Your task to perform on an android device: Add "razer blackwidow" to the cart on walmart Image 0: 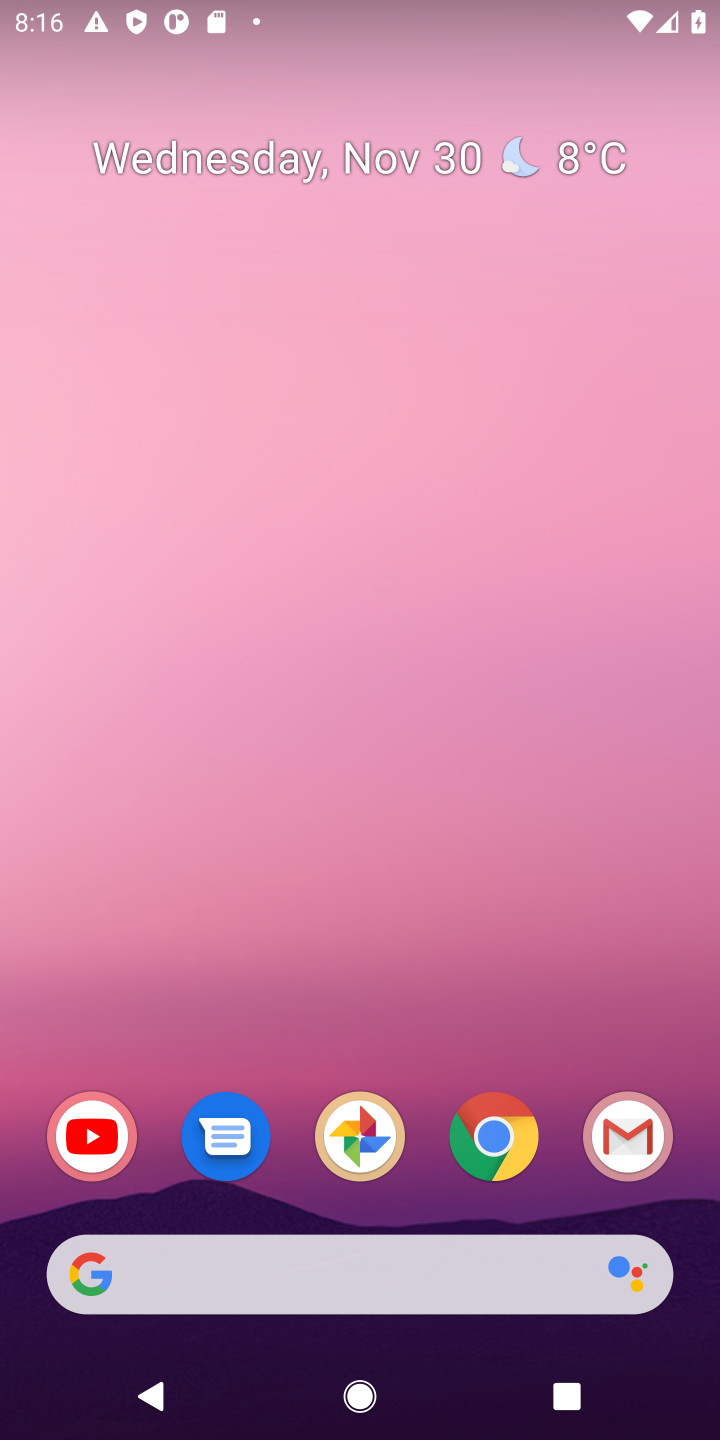
Step 0: click (506, 1151)
Your task to perform on an android device: Add "razer blackwidow" to the cart on walmart Image 1: 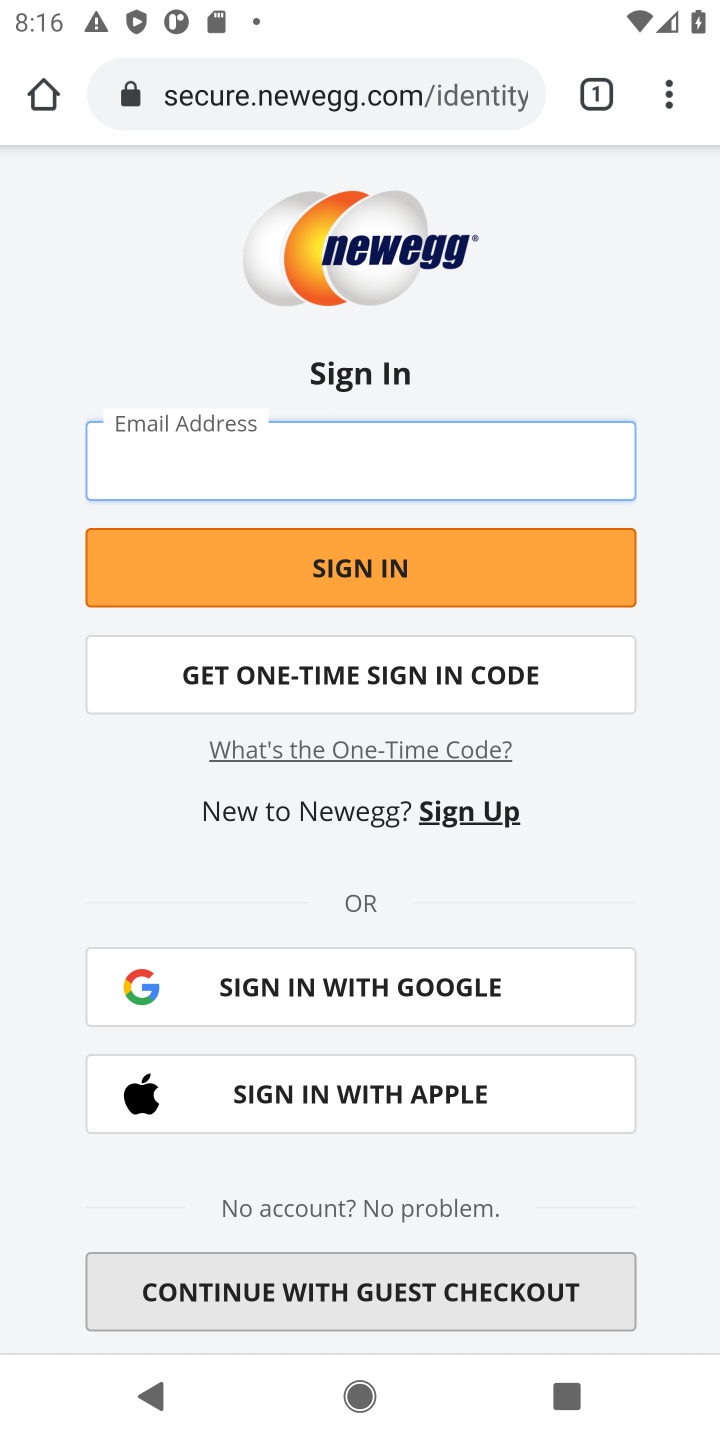
Step 1: click (309, 99)
Your task to perform on an android device: Add "razer blackwidow" to the cart on walmart Image 2: 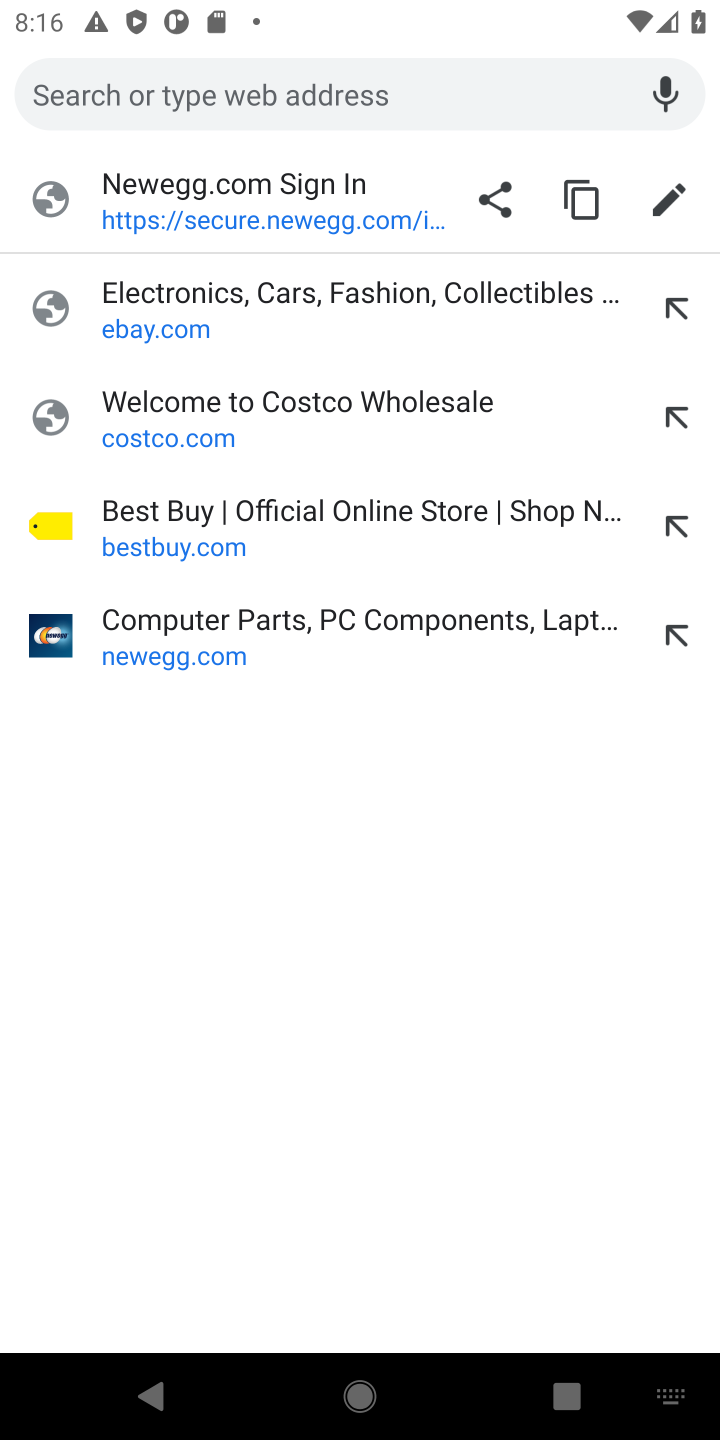
Step 2: type "walmart.com"
Your task to perform on an android device: Add "razer blackwidow" to the cart on walmart Image 3: 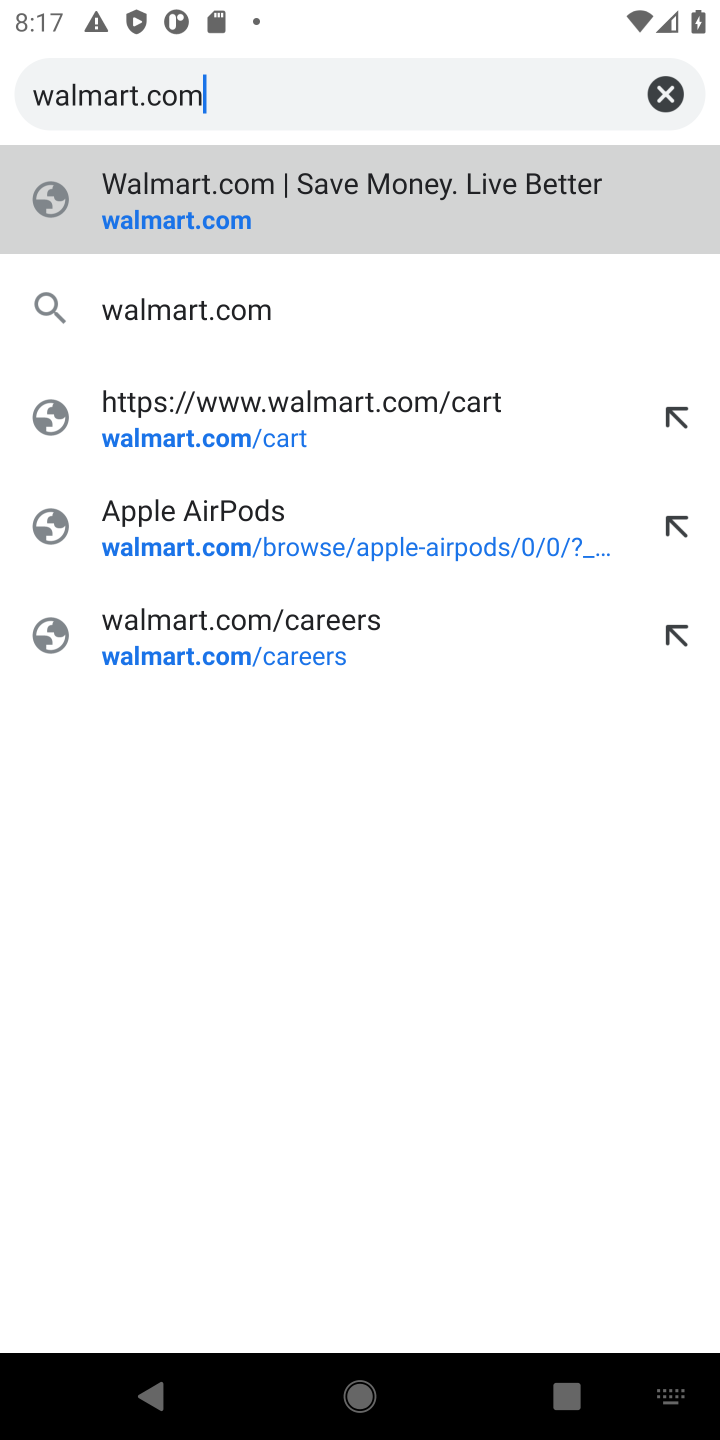
Step 3: click (187, 228)
Your task to perform on an android device: Add "razer blackwidow" to the cart on walmart Image 4: 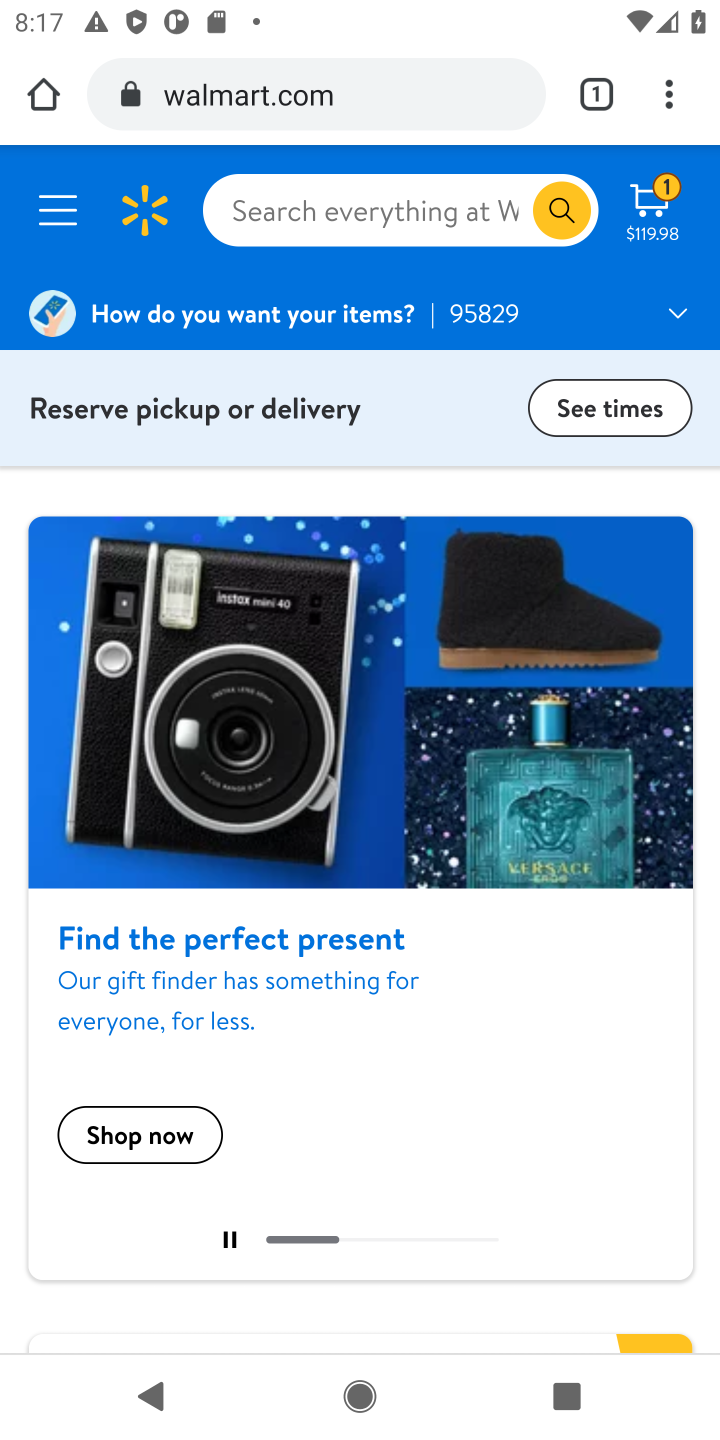
Step 4: click (277, 221)
Your task to perform on an android device: Add "razer blackwidow" to the cart on walmart Image 5: 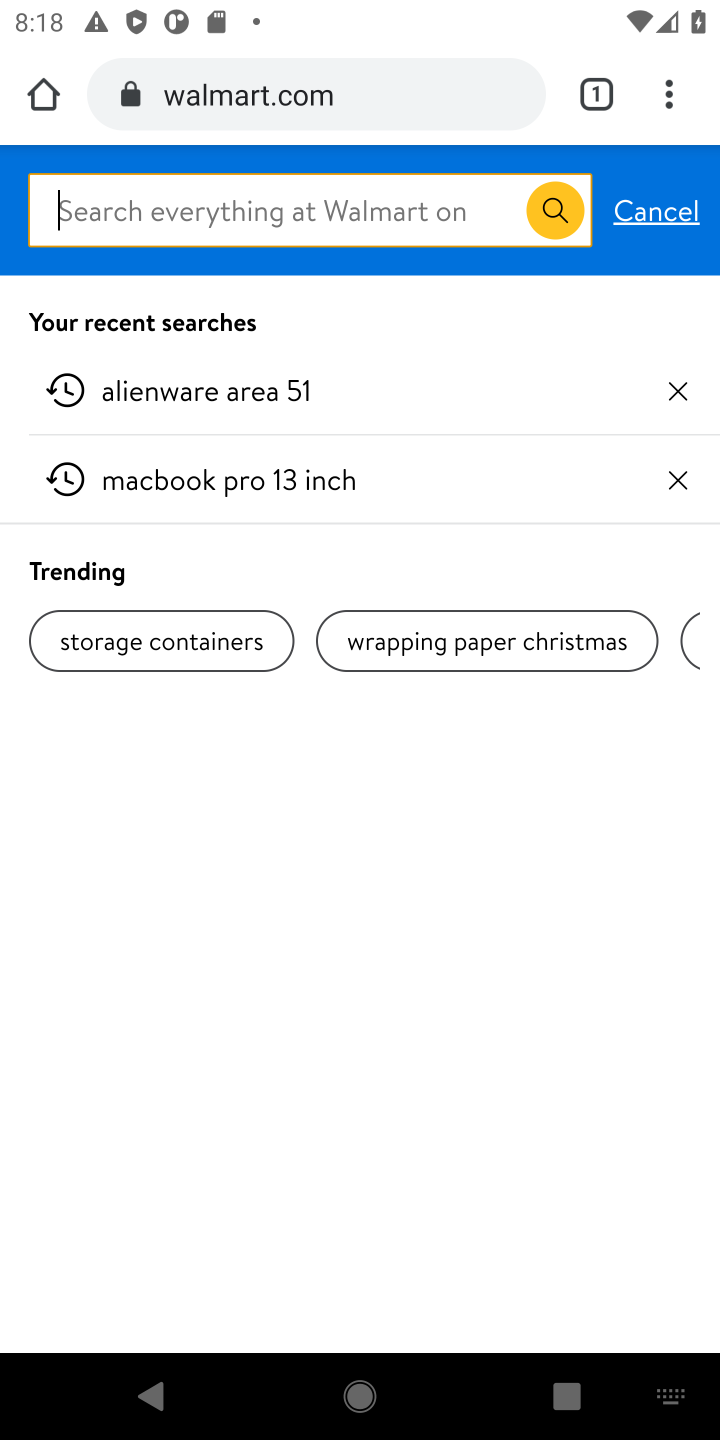
Step 5: click (290, 215)
Your task to perform on an android device: Add "razer blackwidow" to the cart on walmart Image 6: 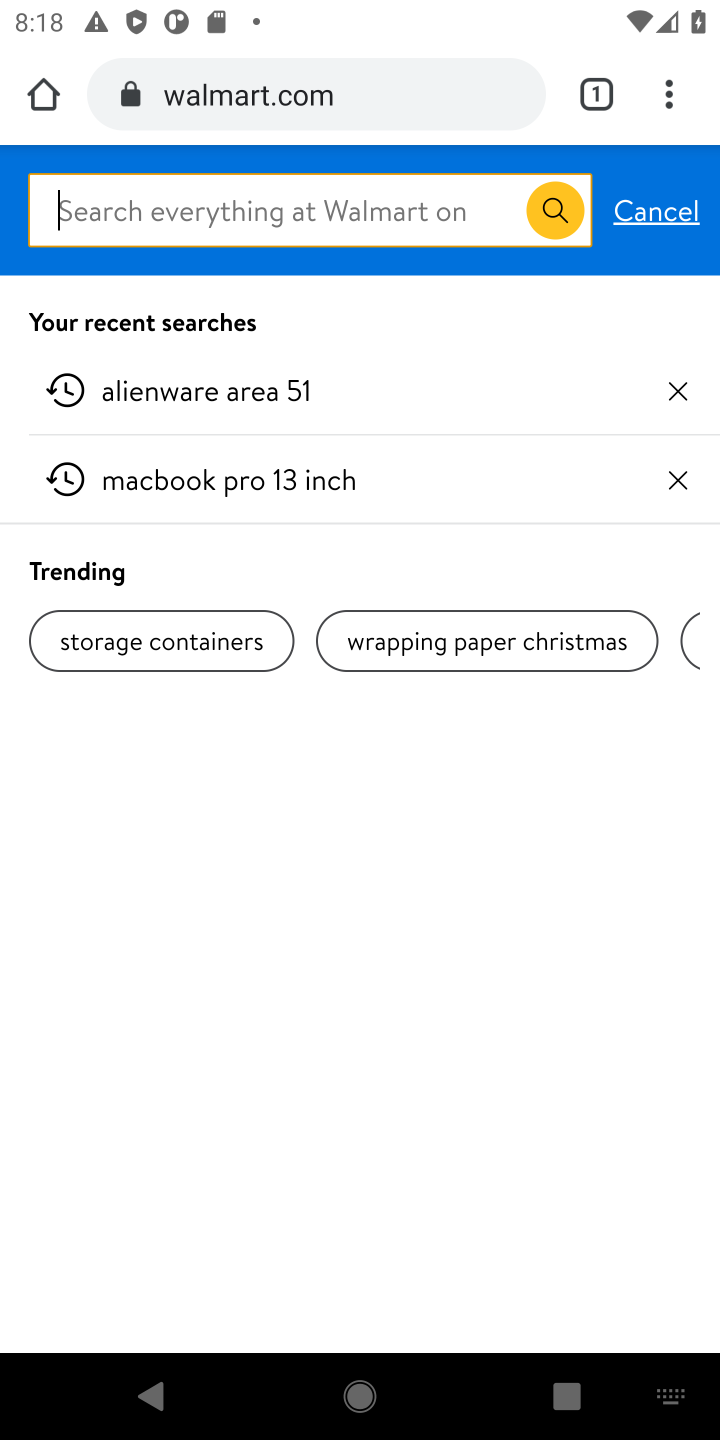
Step 6: type "razer blackwidow"
Your task to perform on an android device: Add "razer blackwidow" to the cart on walmart Image 7: 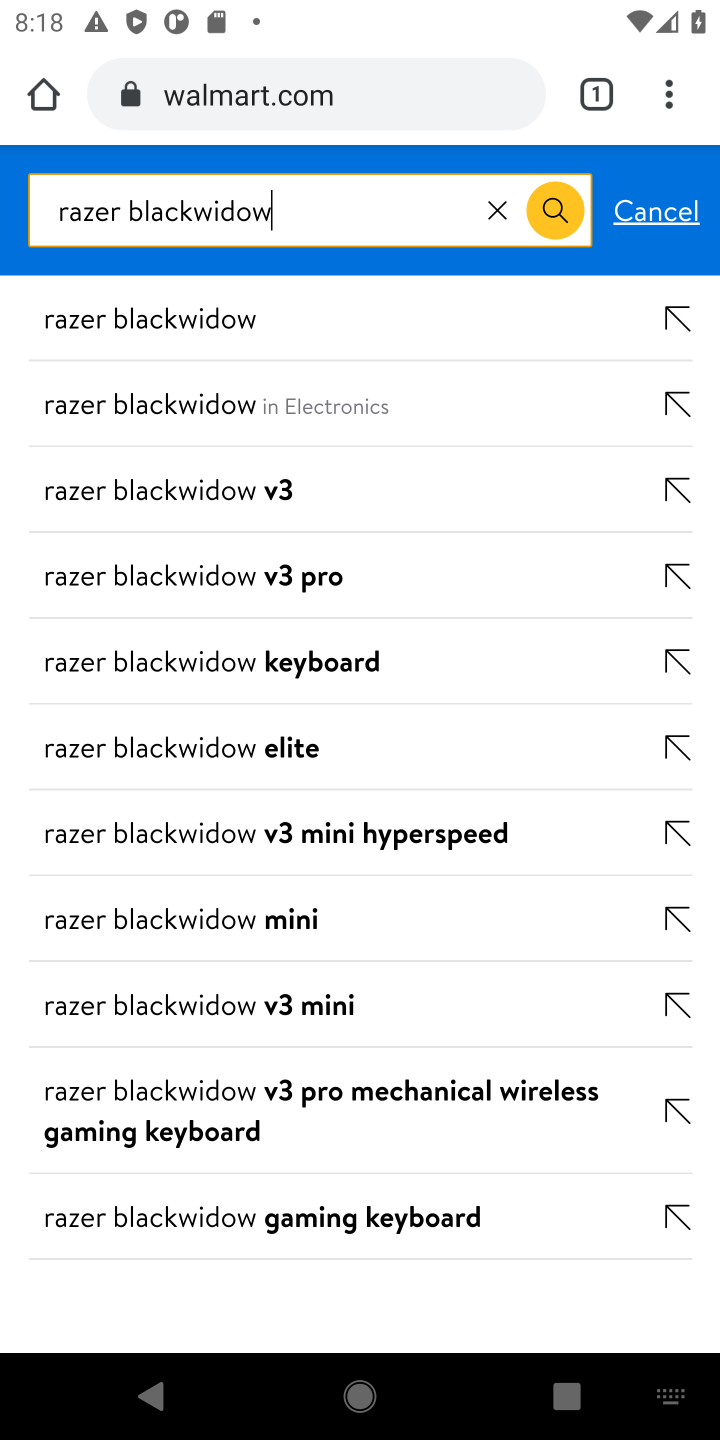
Step 7: click (87, 326)
Your task to perform on an android device: Add "razer blackwidow" to the cart on walmart Image 8: 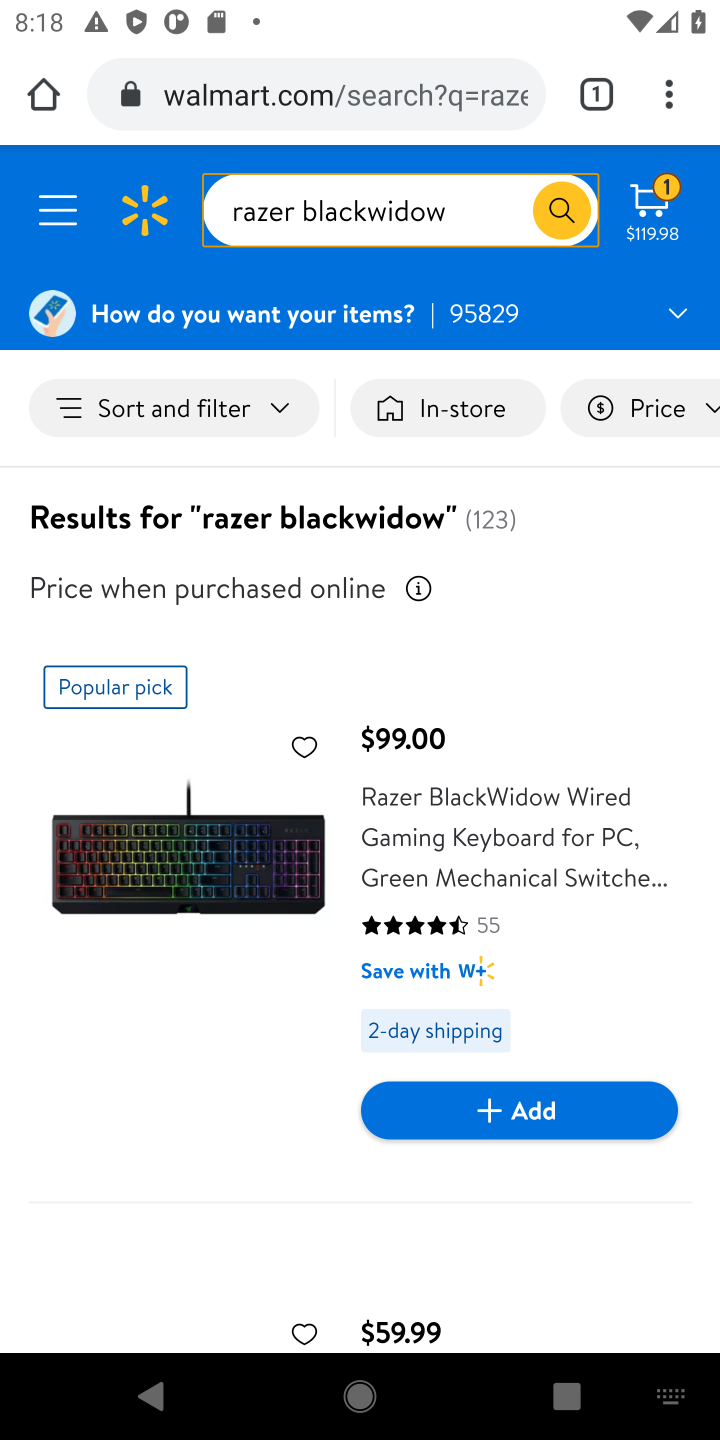
Step 8: drag from (467, 772) to (522, 491)
Your task to perform on an android device: Add "razer blackwidow" to the cart on walmart Image 9: 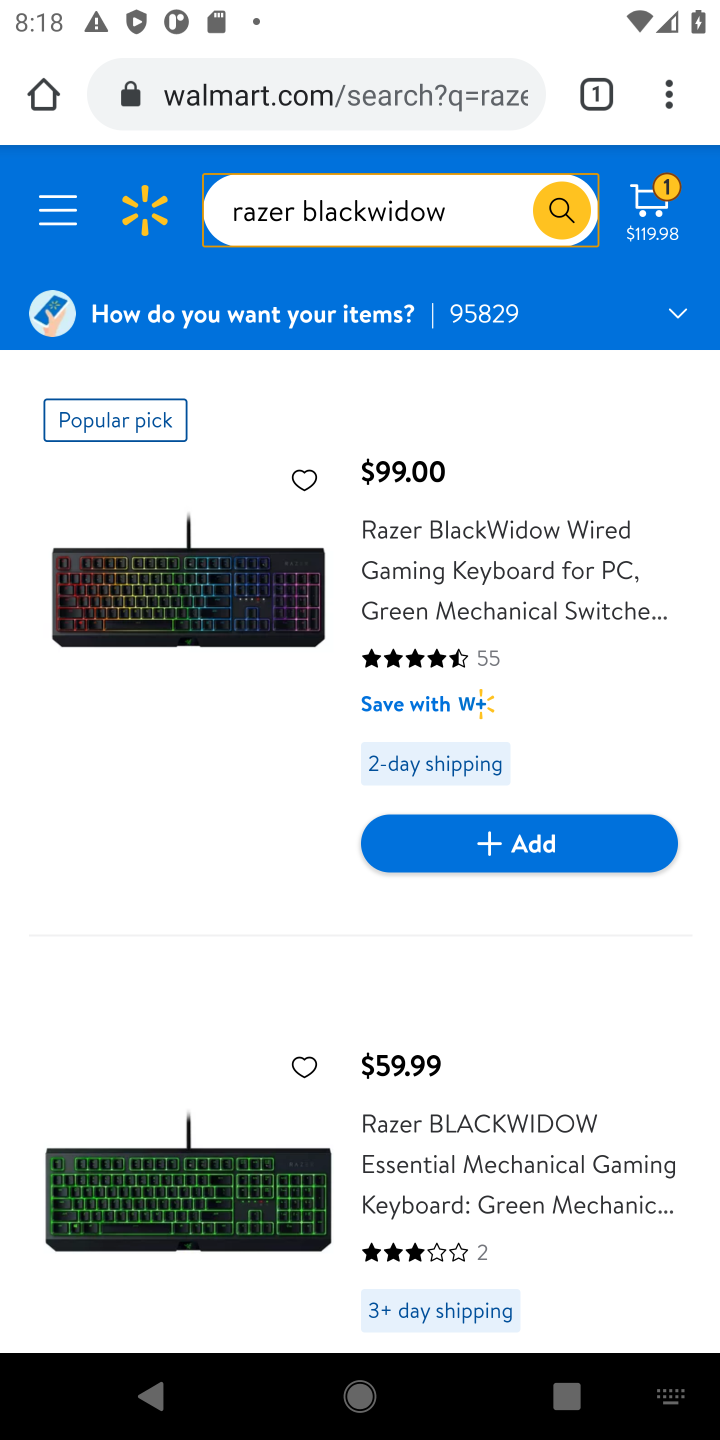
Step 9: click (532, 860)
Your task to perform on an android device: Add "razer blackwidow" to the cart on walmart Image 10: 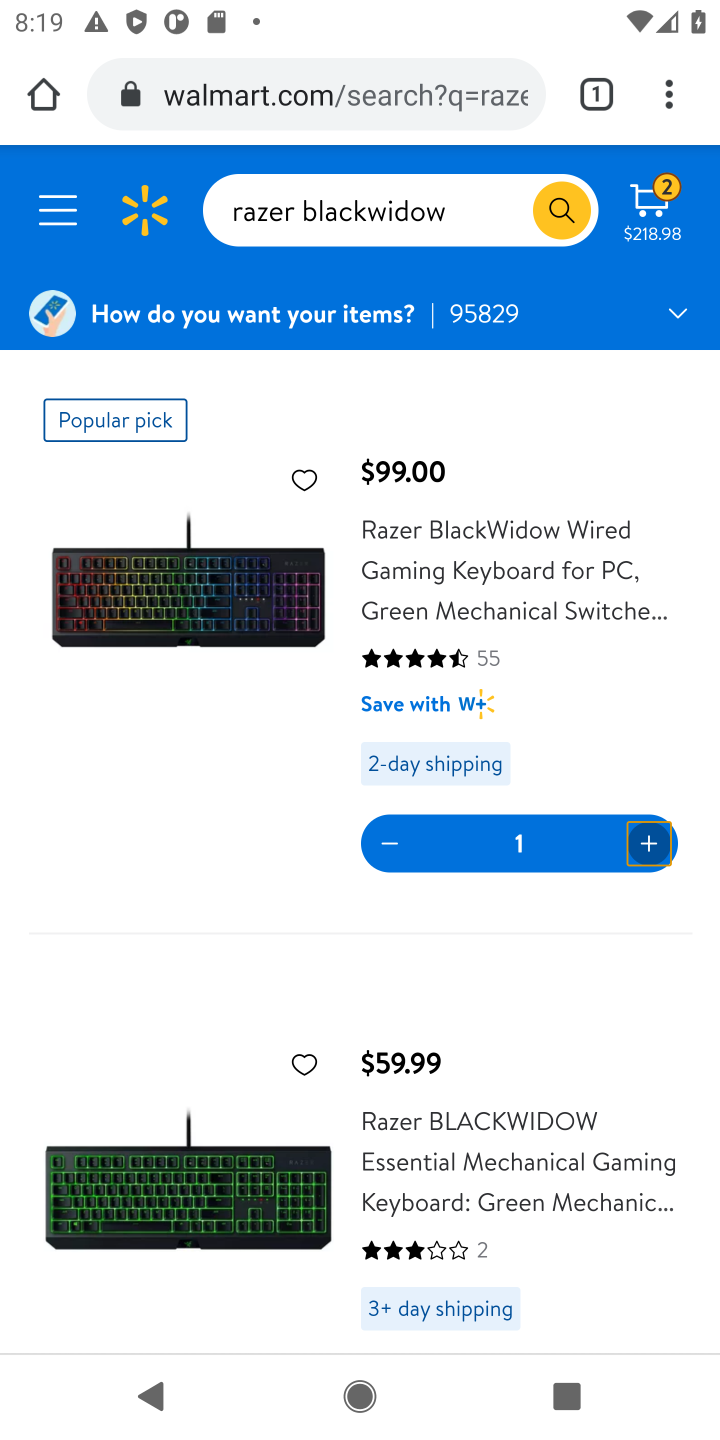
Step 10: task complete